Your task to perform on an android device: create a new album in the google photos Image 0: 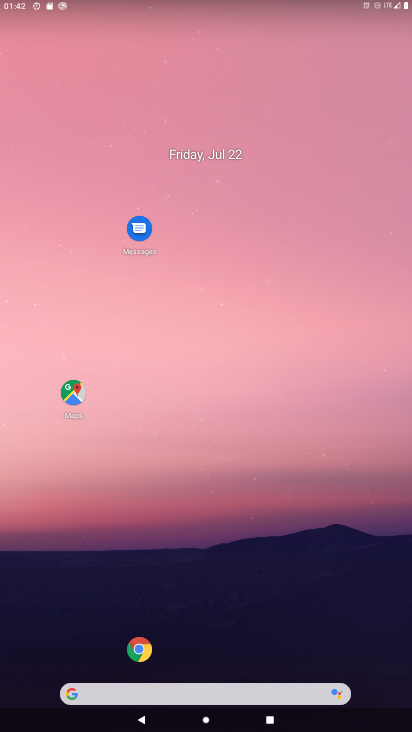
Step 0: drag from (16, 709) to (260, 161)
Your task to perform on an android device: create a new album in the google photos Image 1: 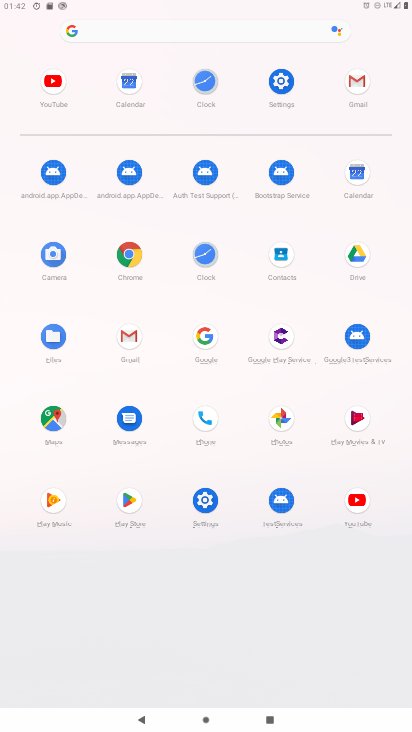
Step 1: click (277, 406)
Your task to perform on an android device: create a new album in the google photos Image 2: 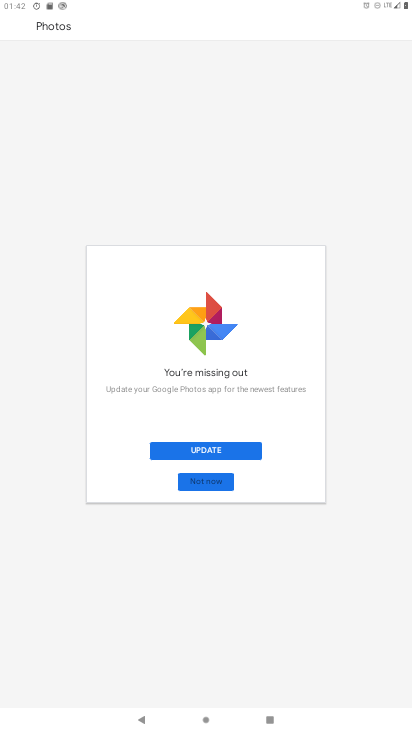
Step 2: click (194, 450)
Your task to perform on an android device: create a new album in the google photos Image 3: 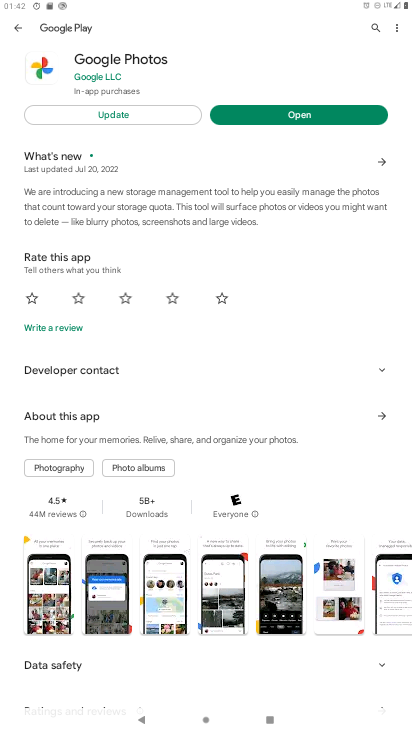
Step 3: click (270, 110)
Your task to perform on an android device: create a new album in the google photos Image 4: 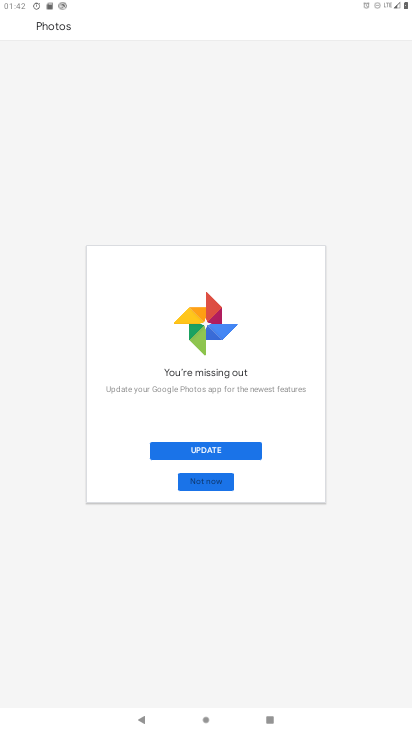
Step 4: click (204, 479)
Your task to perform on an android device: create a new album in the google photos Image 5: 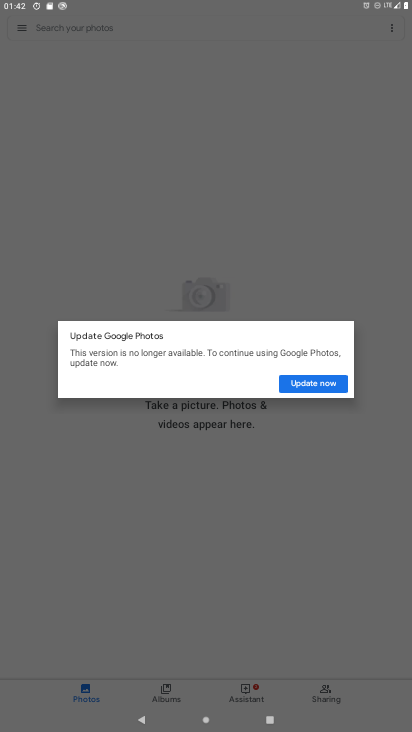
Step 5: click (315, 382)
Your task to perform on an android device: create a new album in the google photos Image 6: 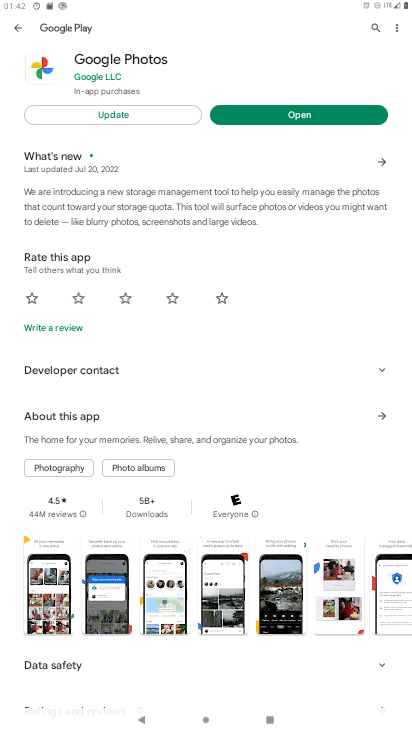
Step 6: task complete